Your task to perform on an android device: empty trash in the gmail app Image 0: 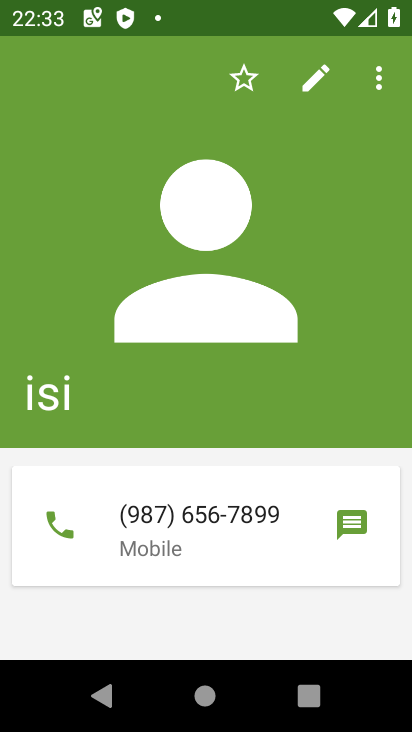
Step 0: press home button
Your task to perform on an android device: empty trash in the gmail app Image 1: 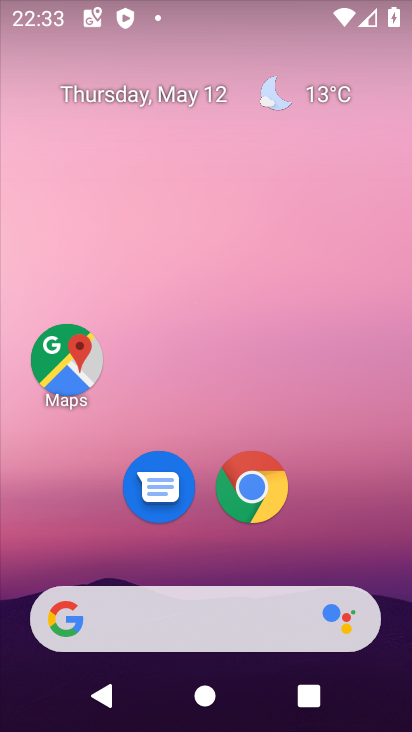
Step 1: drag from (166, 552) to (242, 29)
Your task to perform on an android device: empty trash in the gmail app Image 2: 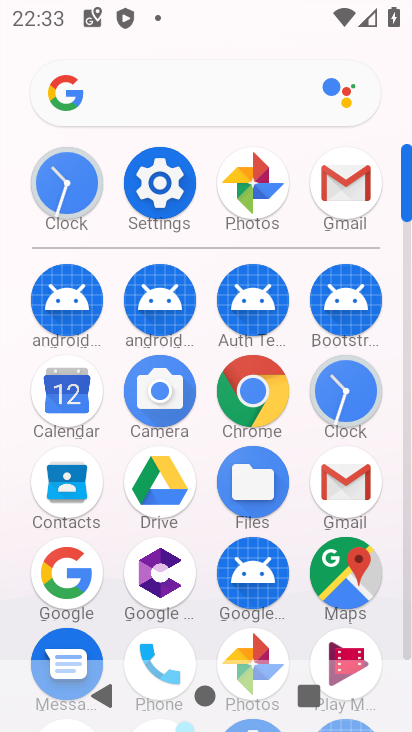
Step 2: click (352, 188)
Your task to perform on an android device: empty trash in the gmail app Image 3: 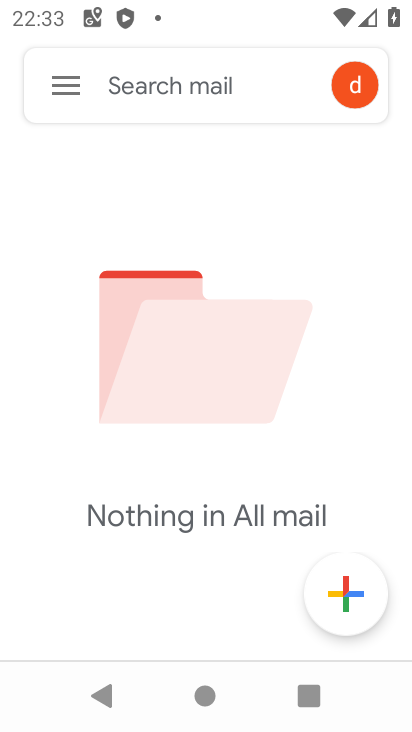
Step 3: click (64, 92)
Your task to perform on an android device: empty trash in the gmail app Image 4: 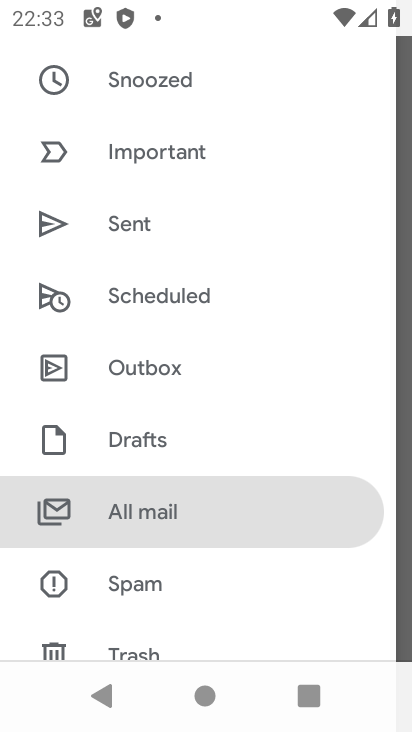
Step 4: click (131, 661)
Your task to perform on an android device: empty trash in the gmail app Image 5: 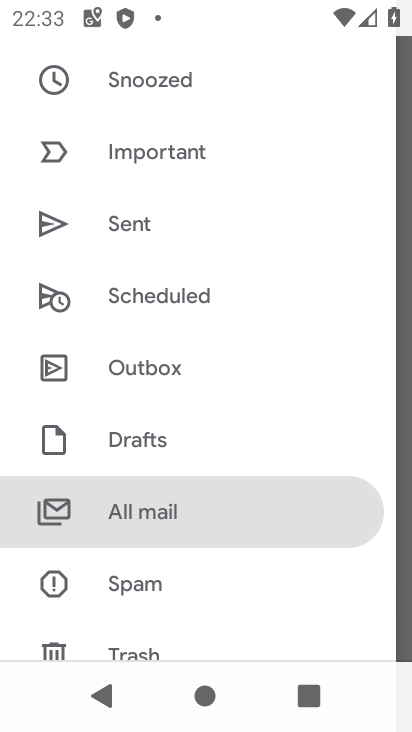
Step 5: click (122, 655)
Your task to perform on an android device: empty trash in the gmail app Image 6: 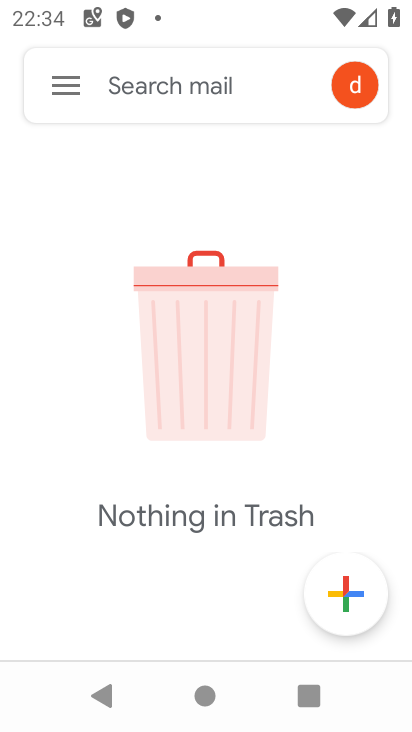
Step 6: task complete